Your task to perform on an android device: find snoozed emails in the gmail app Image 0: 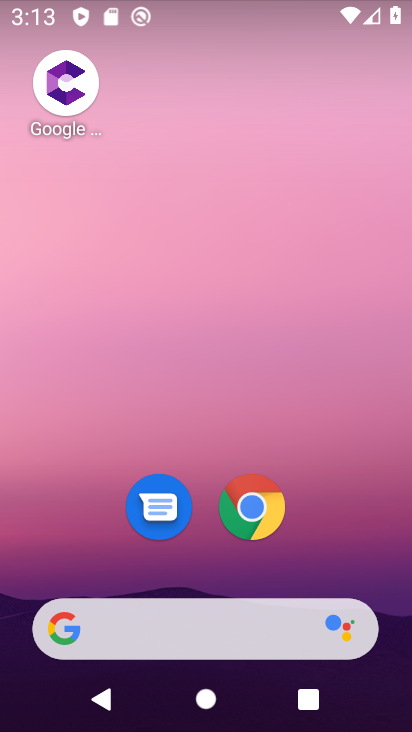
Step 0: drag from (329, 549) to (323, 1)
Your task to perform on an android device: find snoozed emails in the gmail app Image 1: 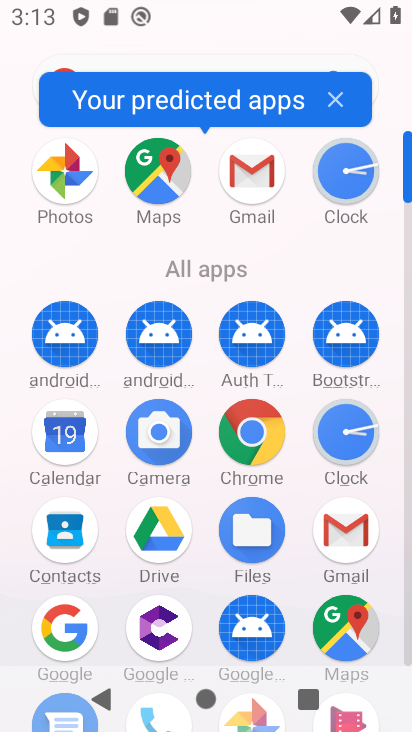
Step 1: click (259, 176)
Your task to perform on an android device: find snoozed emails in the gmail app Image 2: 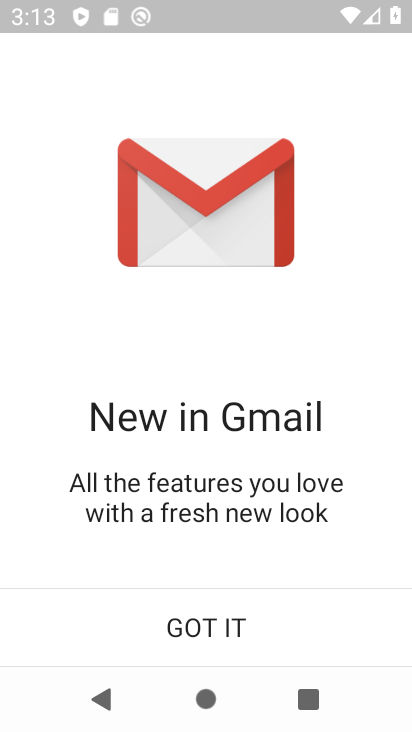
Step 2: click (193, 619)
Your task to perform on an android device: find snoozed emails in the gmail app Image 3: 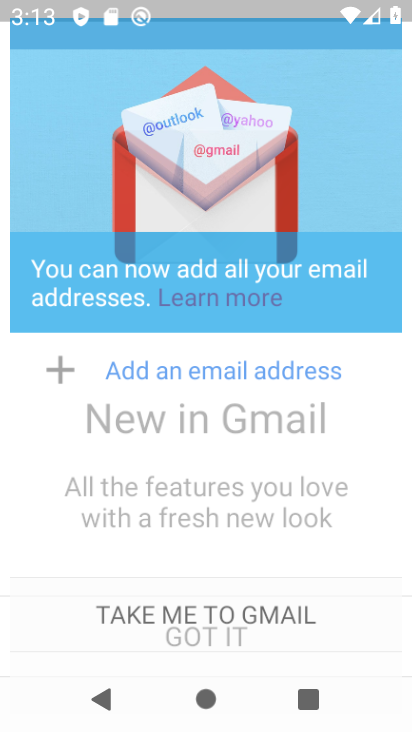
Step 3: click (193, 619)
Your task to perform on an android device: find snoozed emails in the gmail app Image 4: 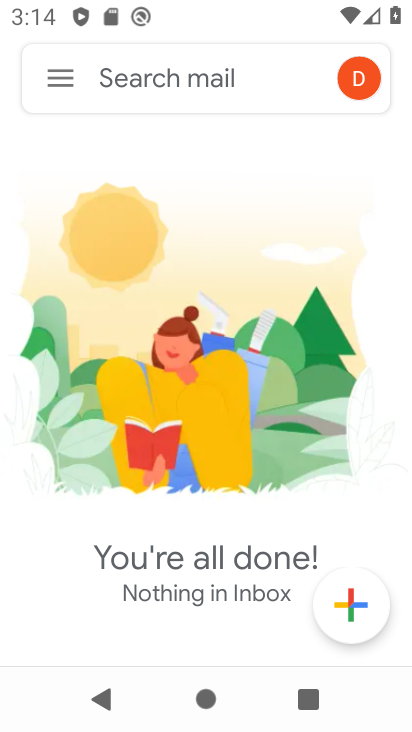
Step 4: click (42, 87)
Your task to perform on an android device: find snoozed emails in the gmail app Image 5: 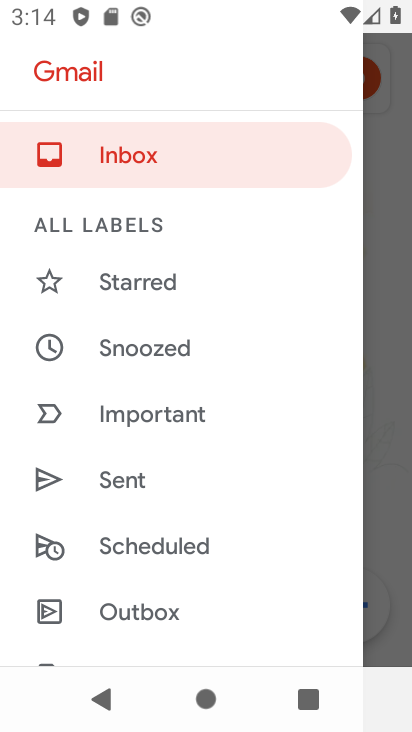
Step 5: click (154, 353)
Your task to perform on an android device: find snoozed emails in the gmail app Image 6: 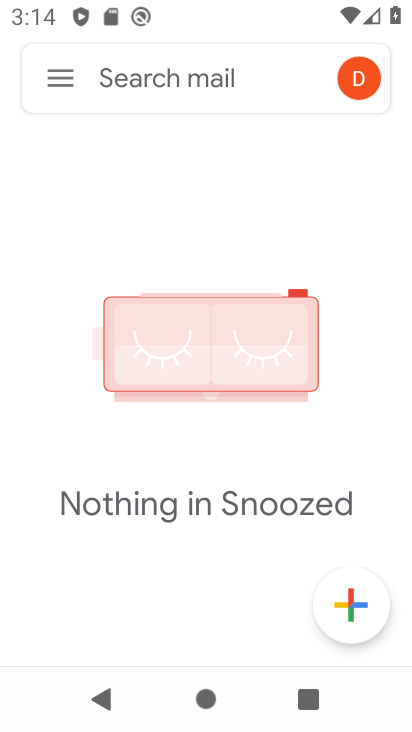
Step 6: task complete